Your task to perform on an android device: open a new tab in the chrome app Image 0: 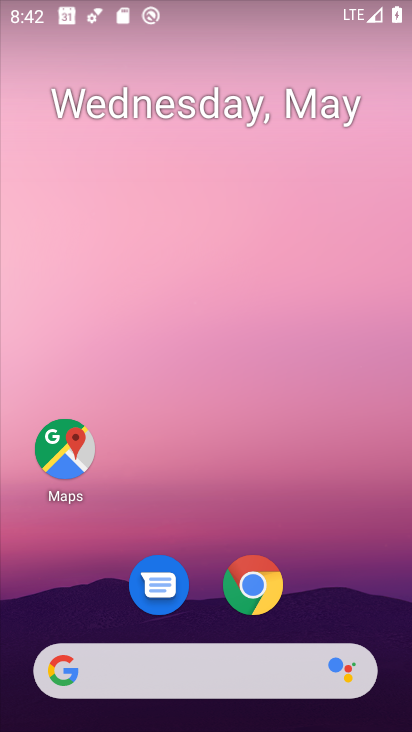
Step 0: click (264, 579)
Your task to perform on an android device: open a new tab in the chrome app Image 1: 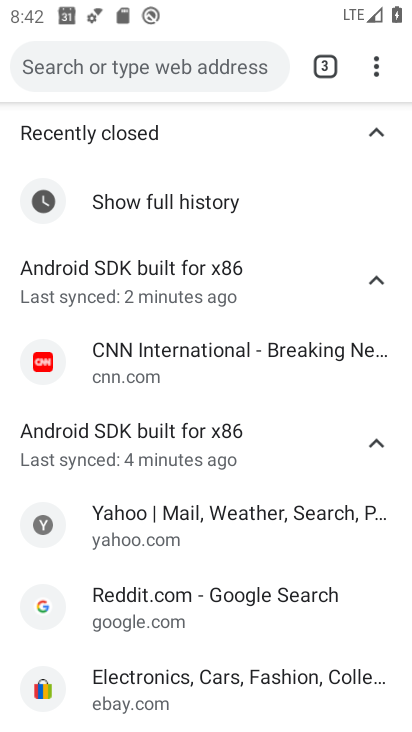
Step 1: click (373, 64)
Your task to perform on an android device: open a new tab in the chrome app Image 2: 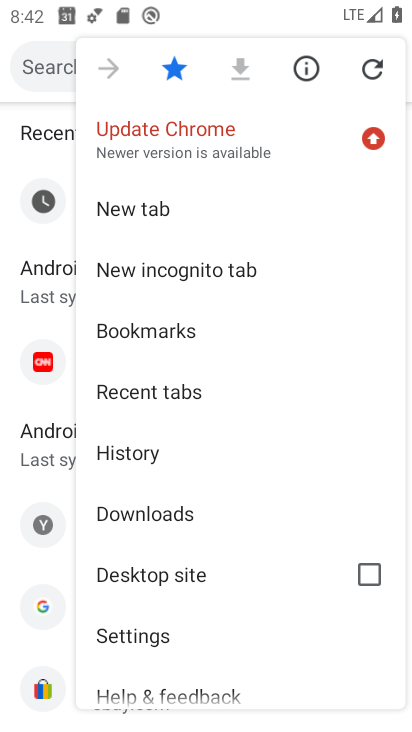
Step 2: click (250, 206)
Your task to perform on an android device: open a new tab in the chrome app Image 3: 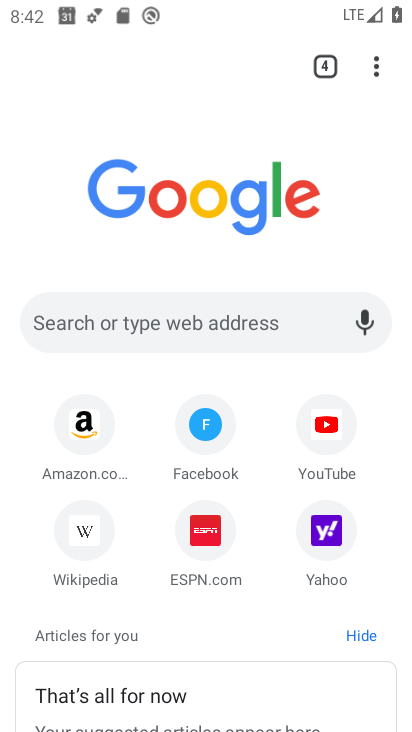
Step 3: task complete